Your task to perform on an android device: turn on the 24-hour format for clock Image 0: 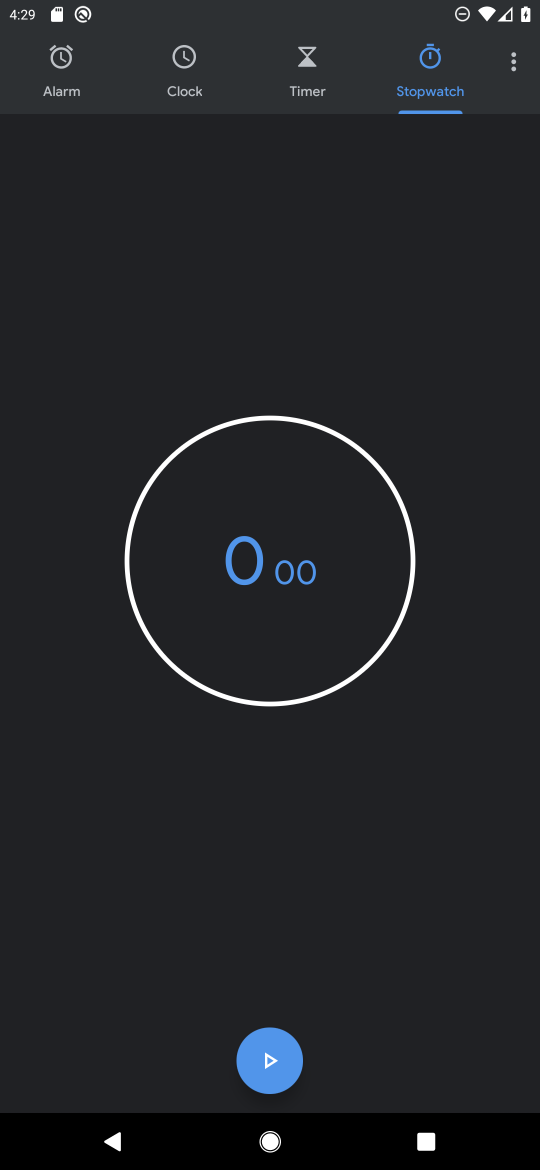
Step 0: press home button
Your task to perform on an android device: turn on the 24-hour format for clock Image 1: 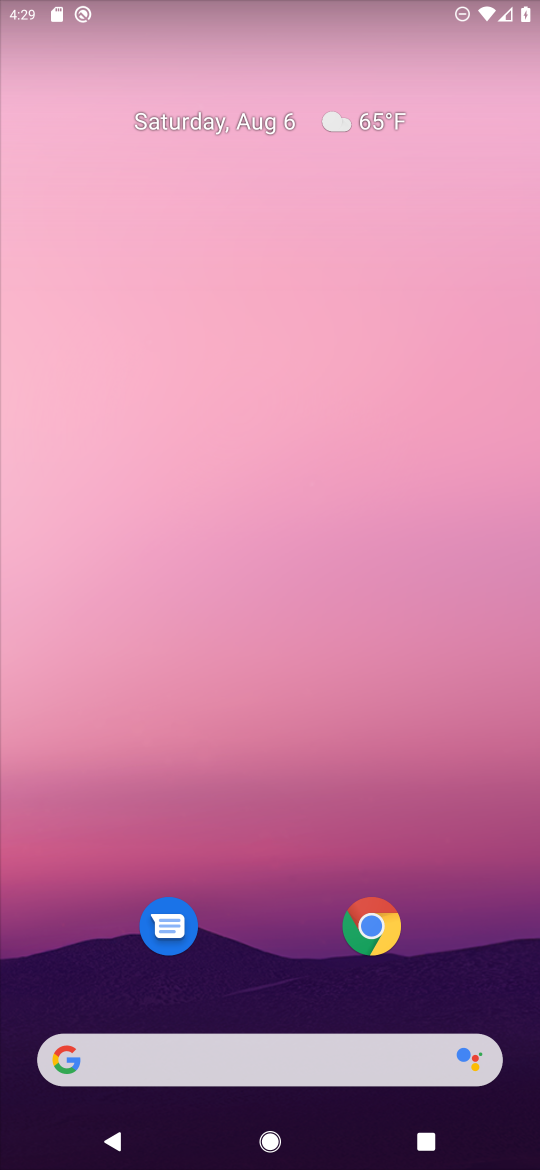
Step 1: drag from (288, 908) to (270, 353)
Your task to perform on an android device: turn on the 24-hour format for clock Image 2: 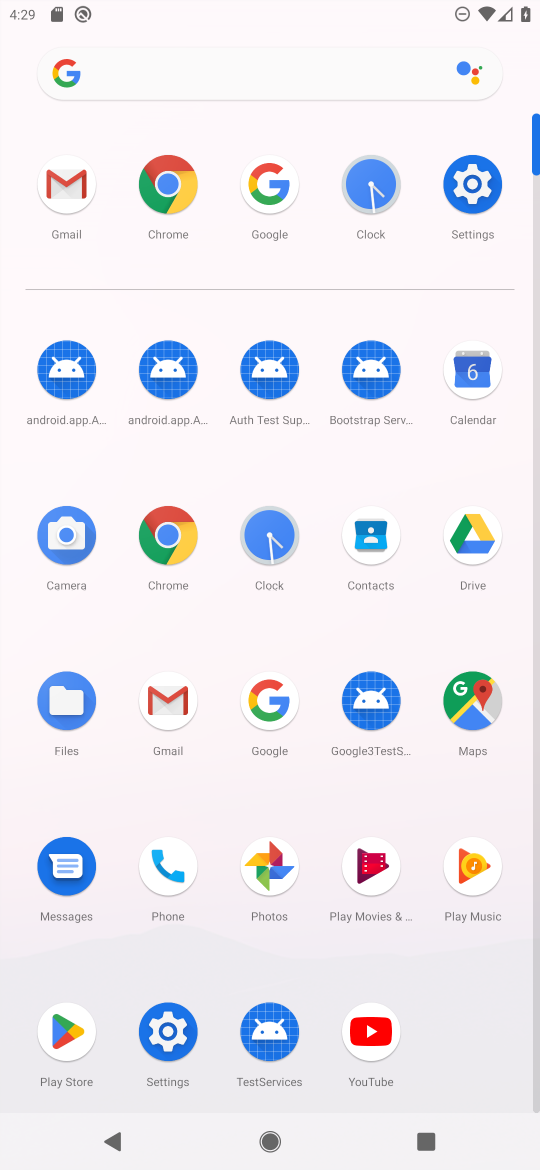
Step 2: click (366, 204)
Your task to perform on an android device: turn on the 24-hour format for clock Image 3: 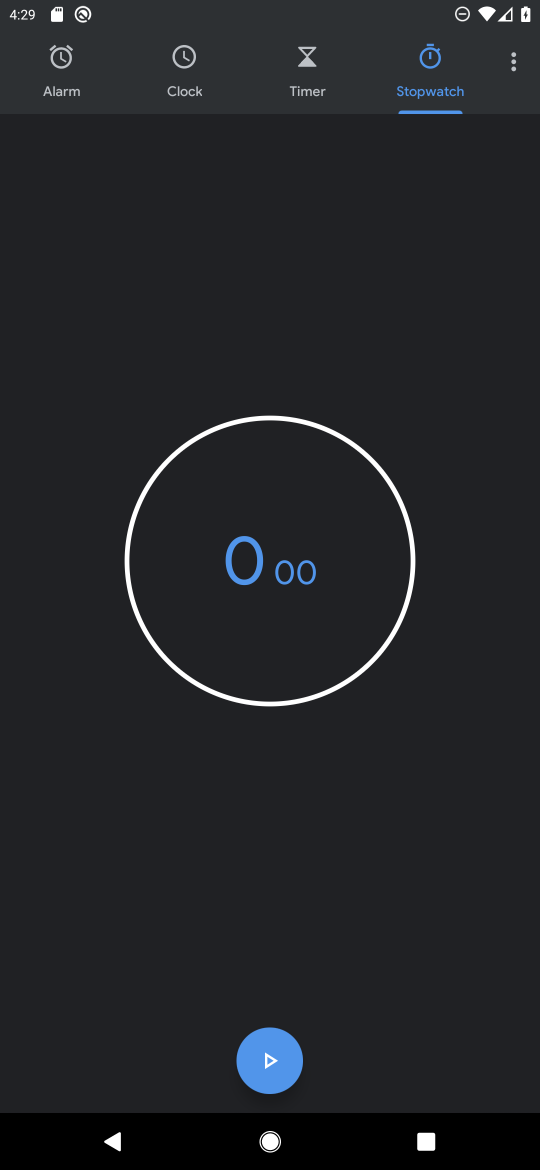
Step 3: click (520, 74)
Your task to perform on an android device: turn on the 24-hour format for clock Image 4: 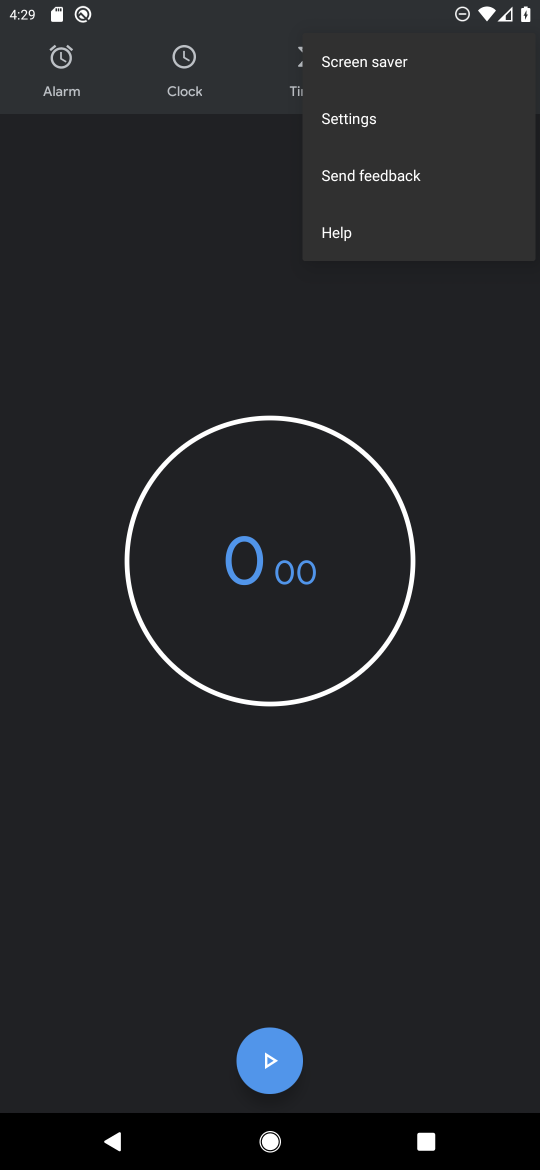
Step 4: click (344, 135)
Your task to perform on an android device: turn on the 24-hour format for clock Image 5: 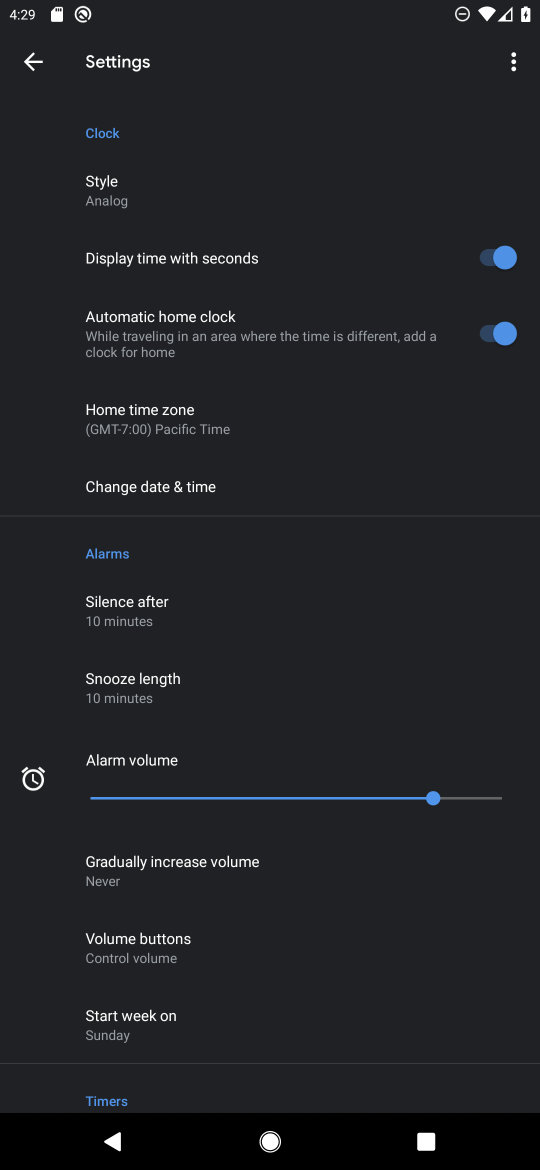
Step 5: click (210, 509)
Your task to perform on an android device: turn on the 24-hour format for clock Image 6: 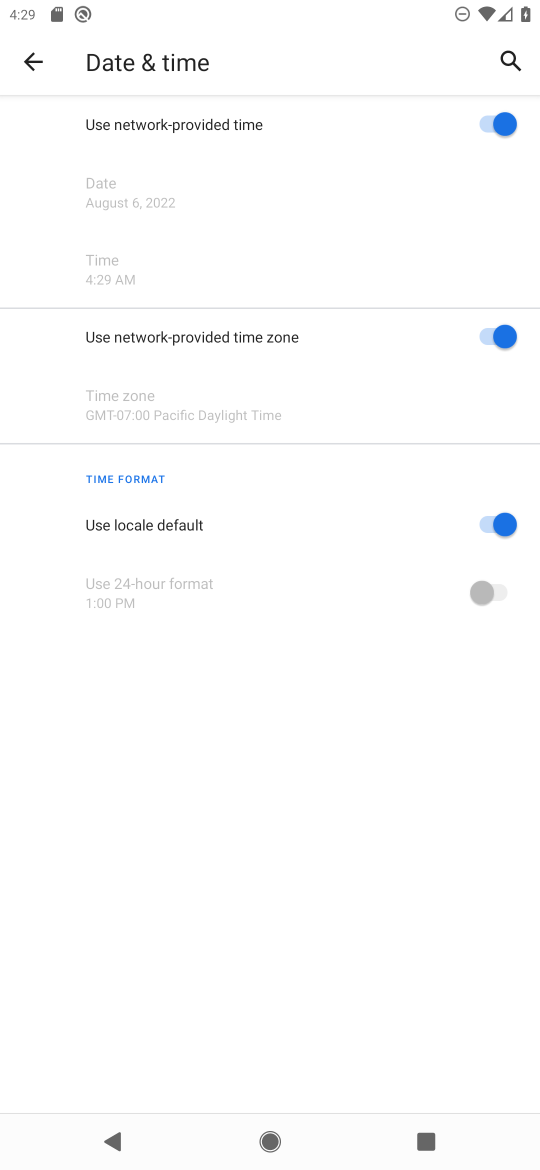
Step 6: click (486, 536)
Your task to perform on an android device: turn on the 24-hour format for clock Image 7: 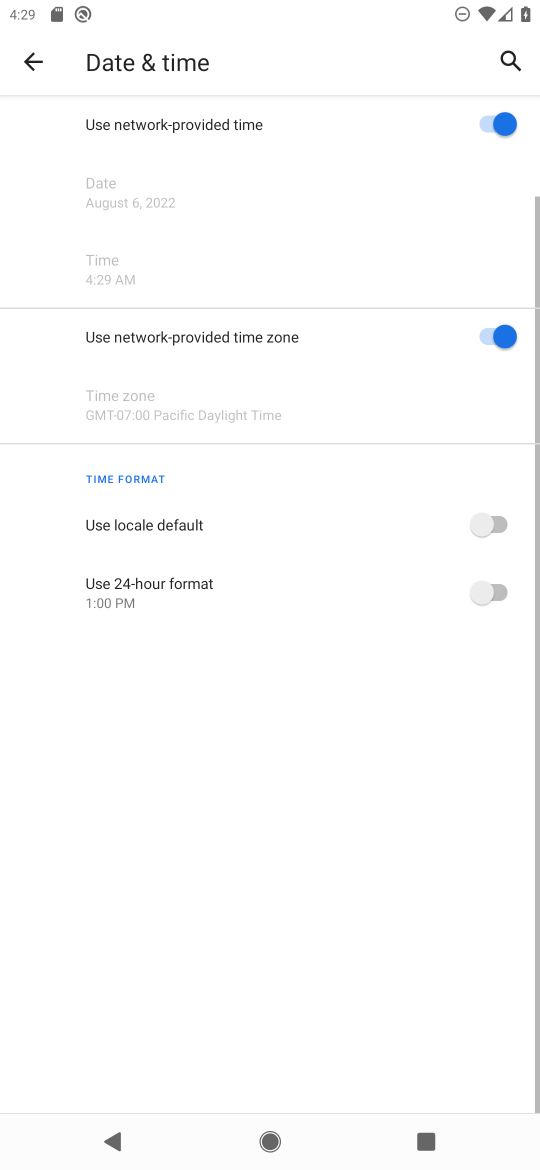
Step 7: click (486, 589)
Your task to perform on an android device: turn on the 24-hour format for clock Image 8: 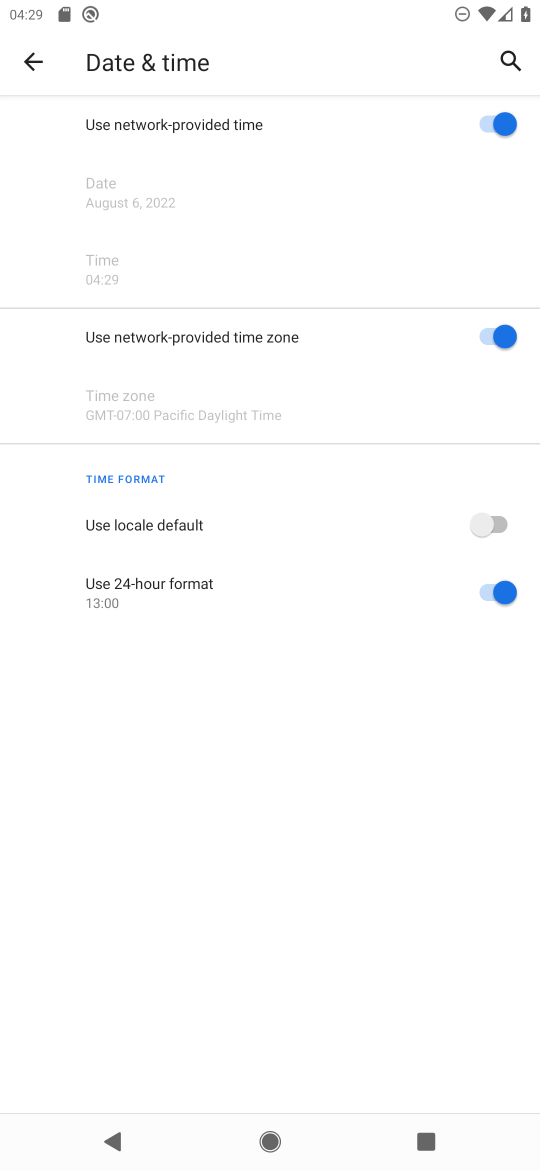
Step 8: task complete